Your task to perform on an android device: set default search engine in the chrome app Image 0: 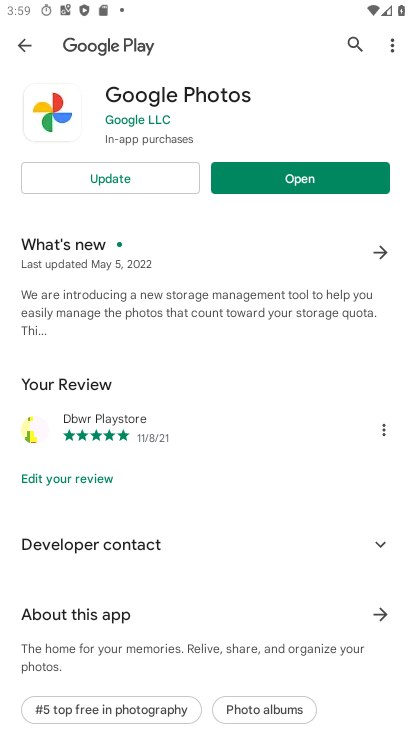
Step 0: press home button
Your task to perform on an android device: set default search engine in the chrome app Image 1: 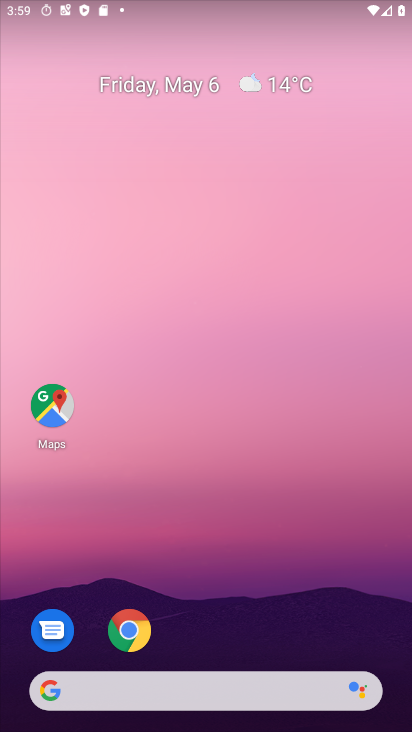
Step 1: click (132, 638)
Your task to perform on an android device: set default search engine in the chrome app Image 2: 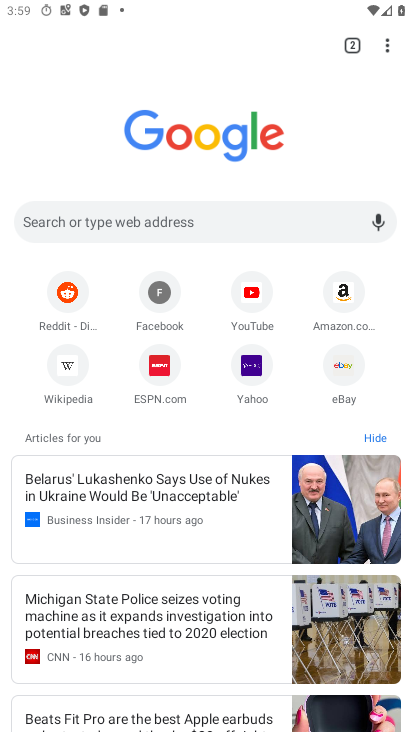
Step 2: click (380, 52)
Your task to perform on an android device: set default search engine in the chrome app Image 3: 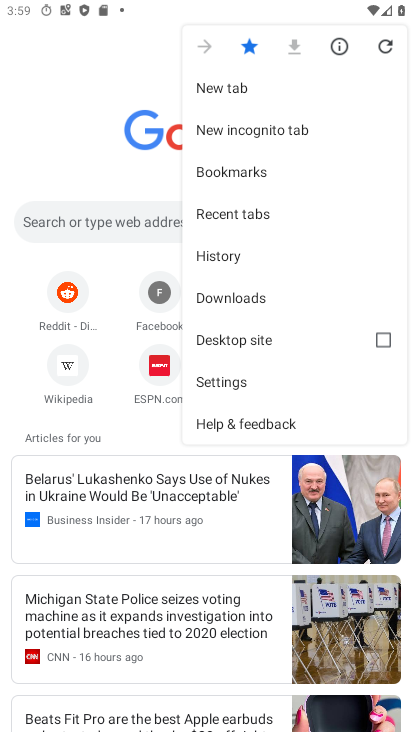
Step 3: click (215, 375)
Your task to perform on an android device: set default search engine in the chrome app Image 4: 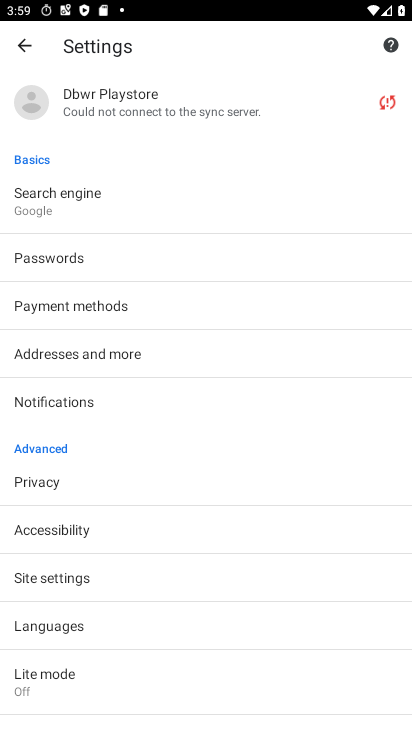
Step 4: click (126, 203)
Your task to perform on an android device: set default search engine in the chrome app Image 5: 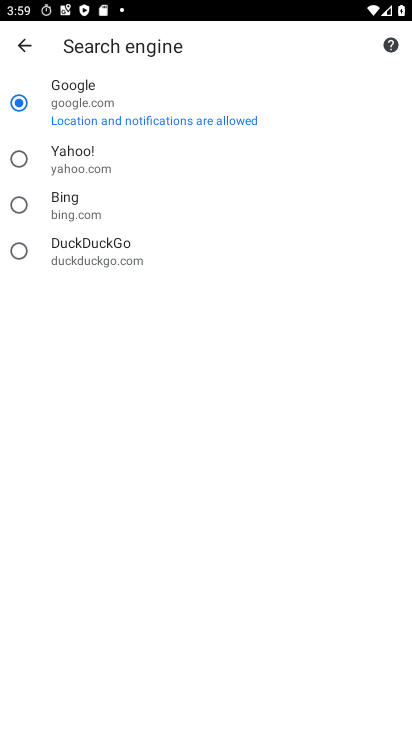
Step 5: click (126, 203)
Your task to perform on an android device: set default search engine in the chrome app Image 6: 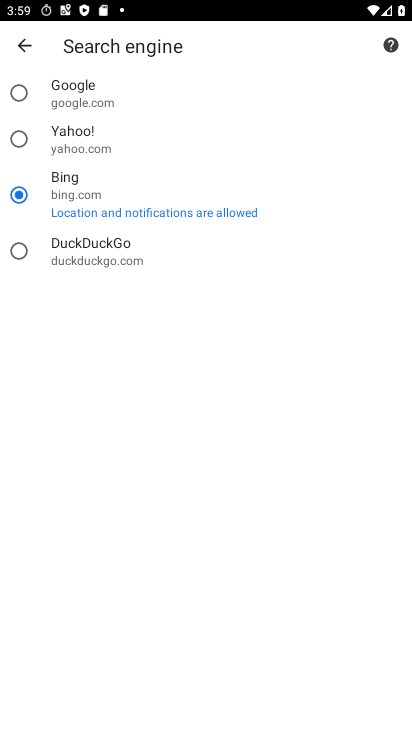
Step 6: task complete